Your task to perform on an android device: Clear the cart on ebay. Add "bose quietcomfort 35" to the cart on ebay Image 0: 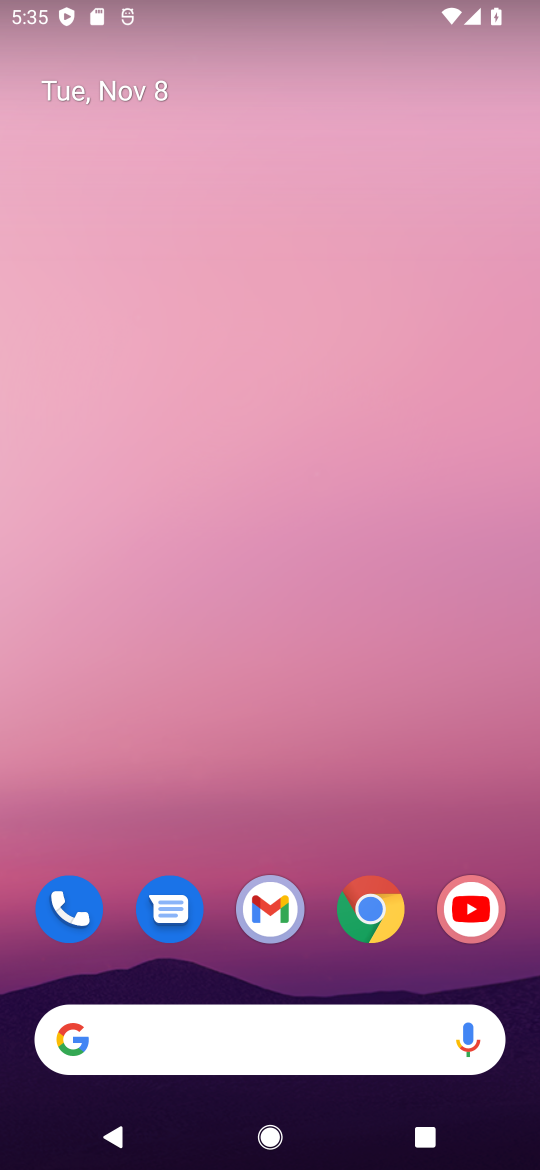
Step 0: click (363, 907)
Your task to perform on an android device: Clear the cart on ebay. Add "bose quietcomfort 35" to the cart on ebay Image 1: 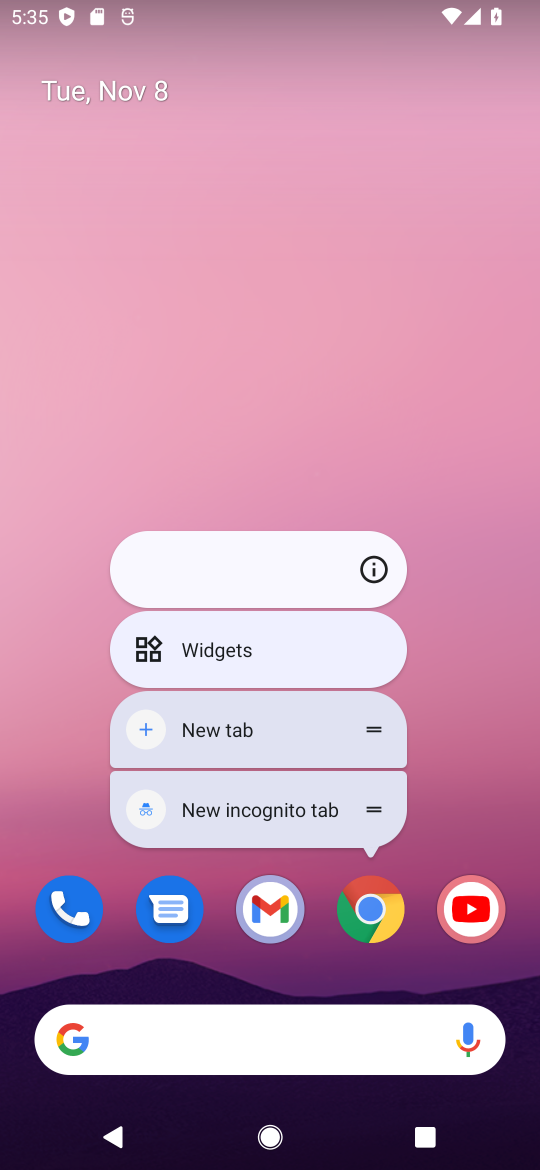
Step 1: click (383, 910)
Your task to perform on an android device: Clear the cart on ebay. Add "bose quietcomfort 35" to the cart on ebay Image 2: 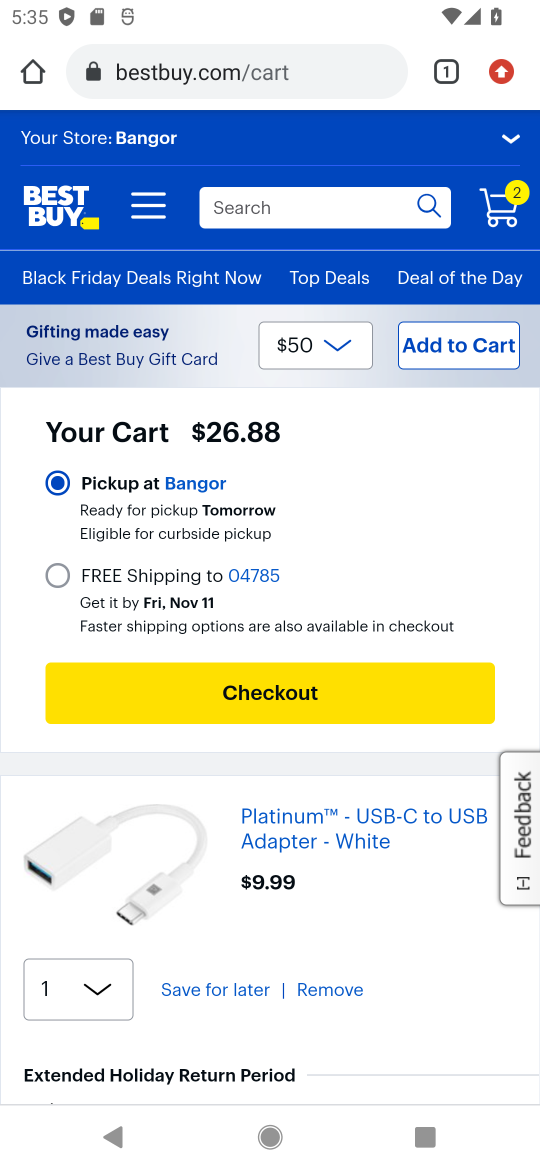
Step 2: click (305, 77)
Your task to perform on an android device: Clear the cart on ebay. Add "bose quietcomfort 35" to the cart on ebay Image 3: 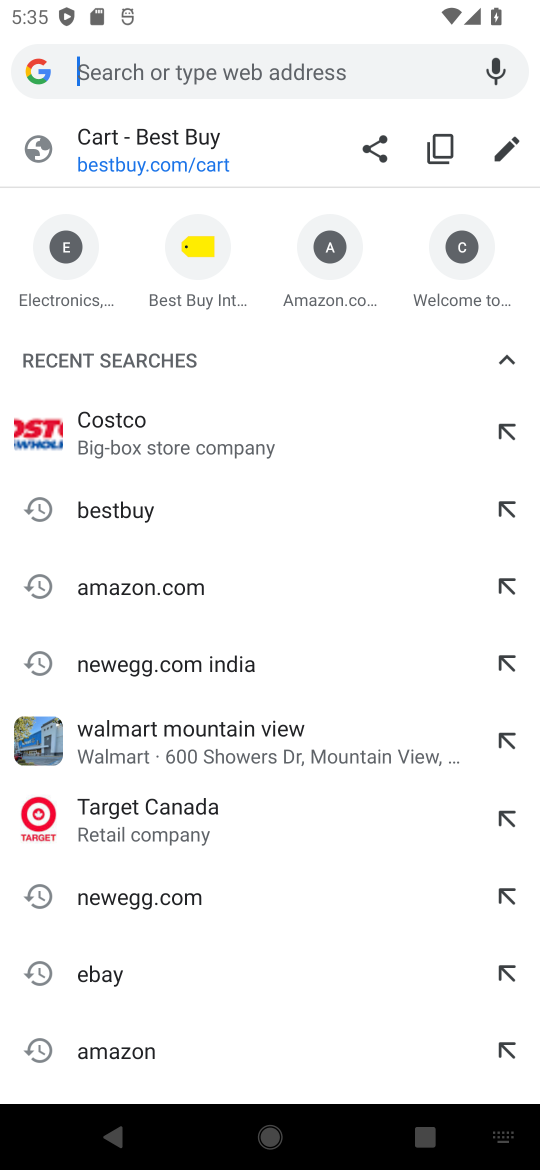
Step 3: click (84, 971)
Your task to perform on an android device: Clear the cart on ebay. Add "bose quietcomfort 35" to the cart on ebay Image 4: 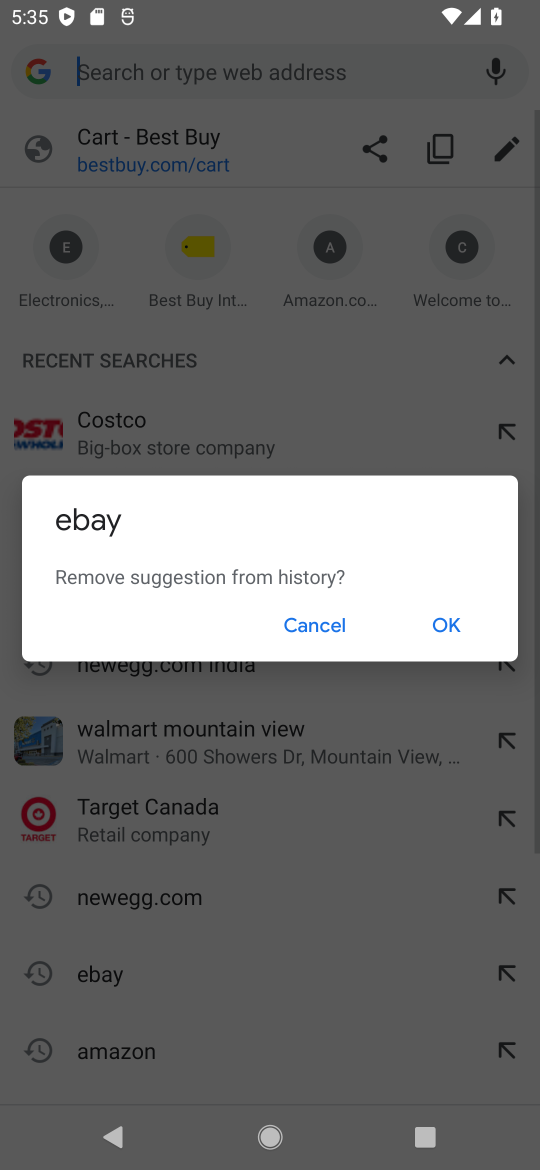
Step 4: click (110, 981)
Your task to perform on an android device: Clear the cart on ebay. Add "bose quietcomfort 35" to the cart on ebay Image 5: 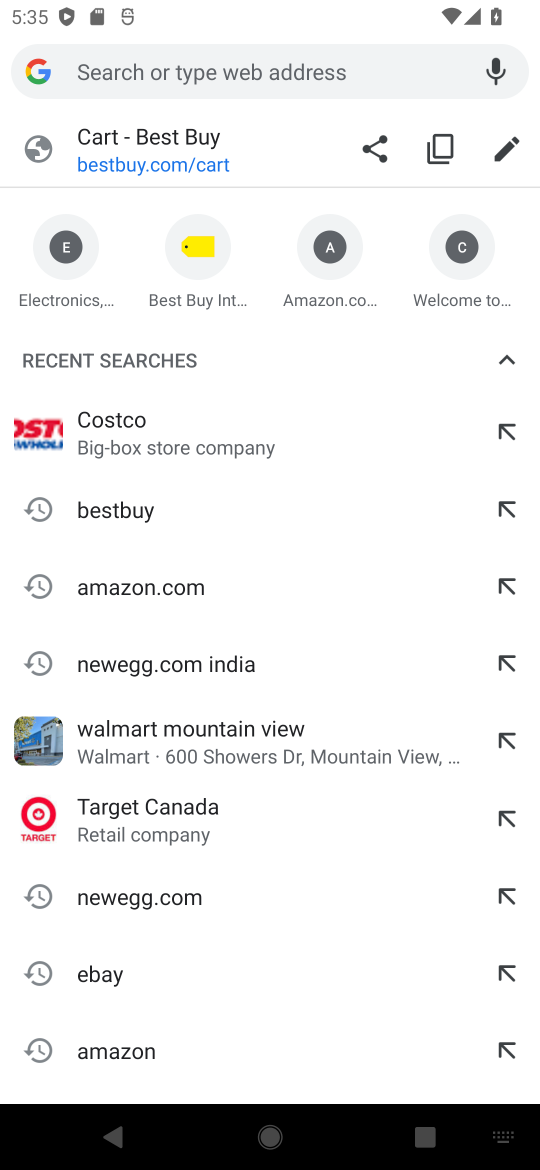
Step 5: click (102, 981)
Your task to perform on an android device: Clear the cart on ebay. Add "bose quietcomfort 35" to the cart on ebay Image 6: 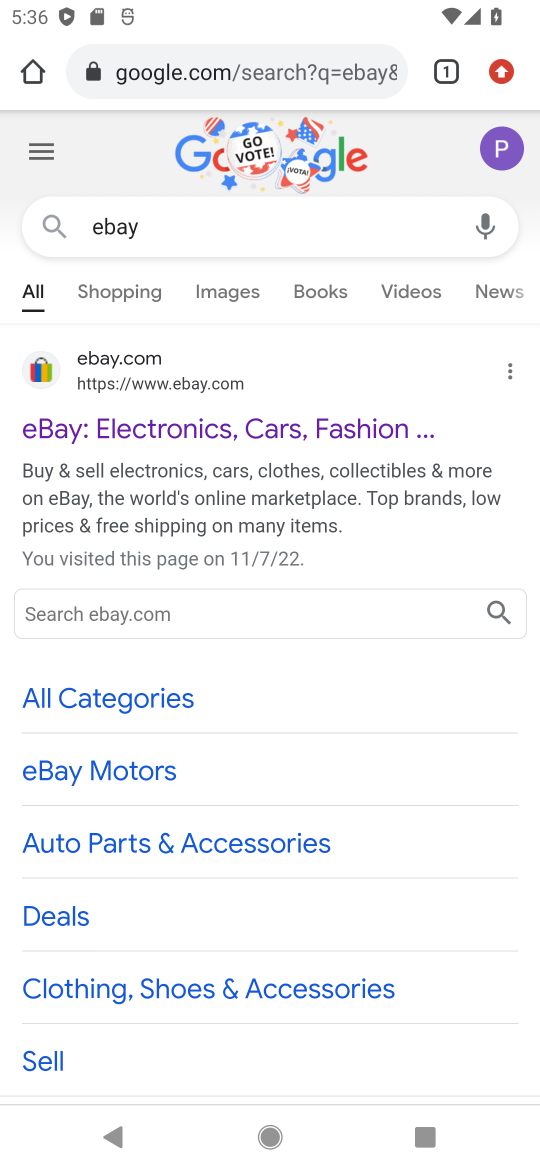
Step 6: click (290, 424)
Your task to perform on an android device: Clear the cart on ebay. Add "bose quietcomfort 35" to the cart on ebay Image 7: 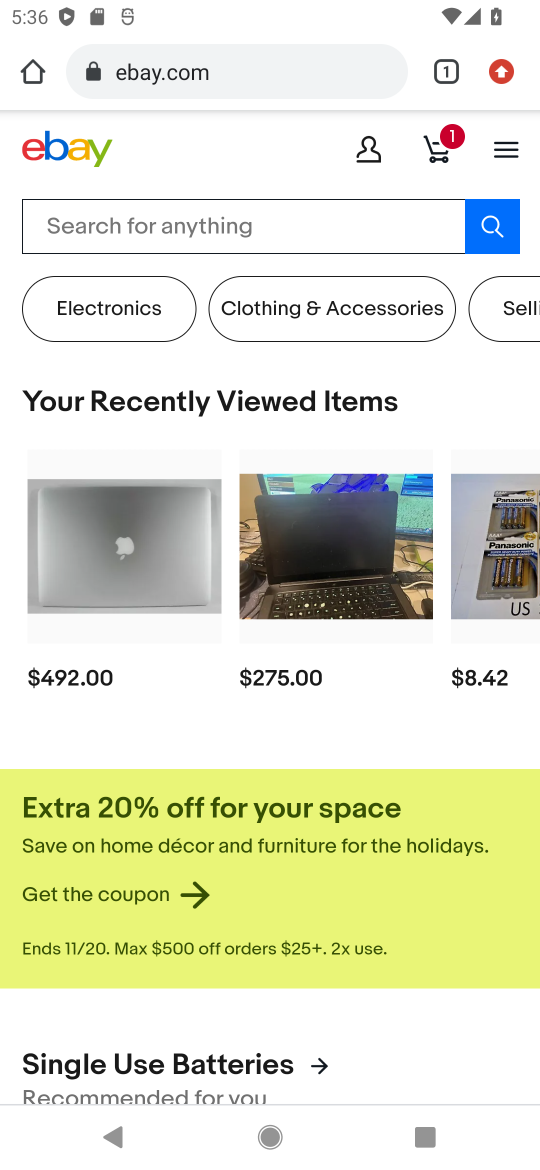
Step 7: click (274, 223)
Your task to perform on an android device: Clear the cart on ebay. Add "bose quietcomfort 35" to the cart on ebay Image 8: 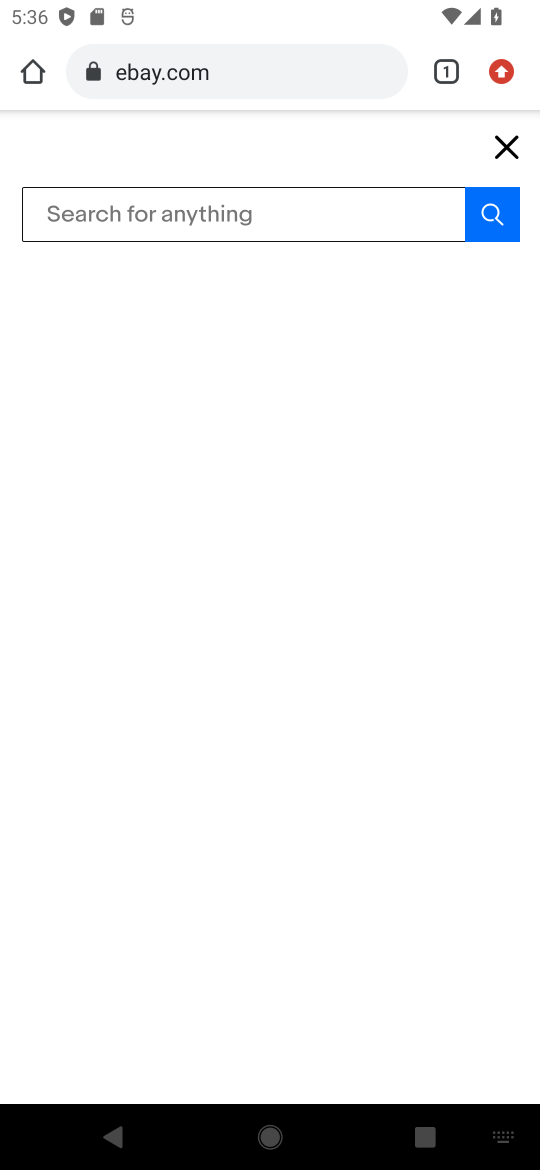
Step 8: type "bose quietcomfort 35"
Your task to perform on an android device: Clear the cart on ebay. Add "bose quietcomfort 35" to the cart on ebay Image 9: 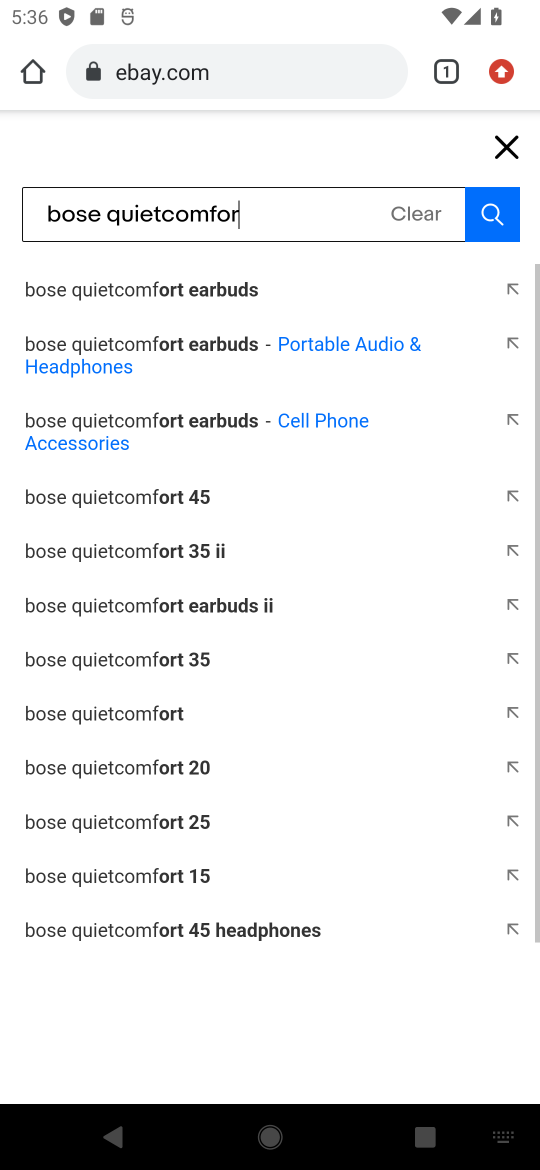
Step 9: press enter
Your task to perform on an android device: Clear the cart on ebay. Add "bose quietcomfort 35" to the cart on ebay Image 10: 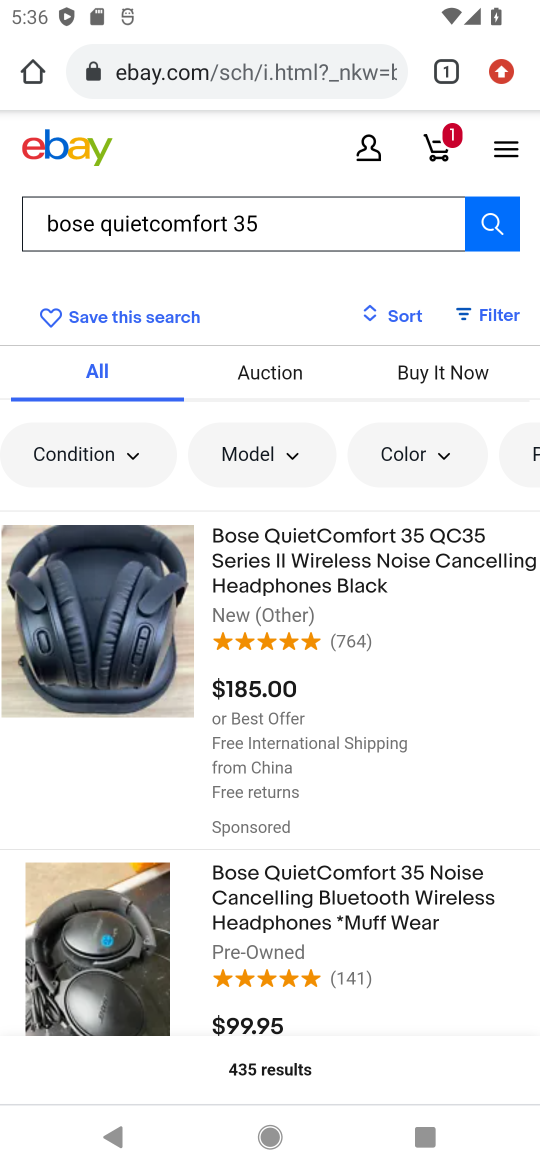
Step 10: click (302, 582)
Your task to perform on an android device: Clear the cart on ebay. Add "bose quietcomfort 35" to the cart on ebay Image 11: 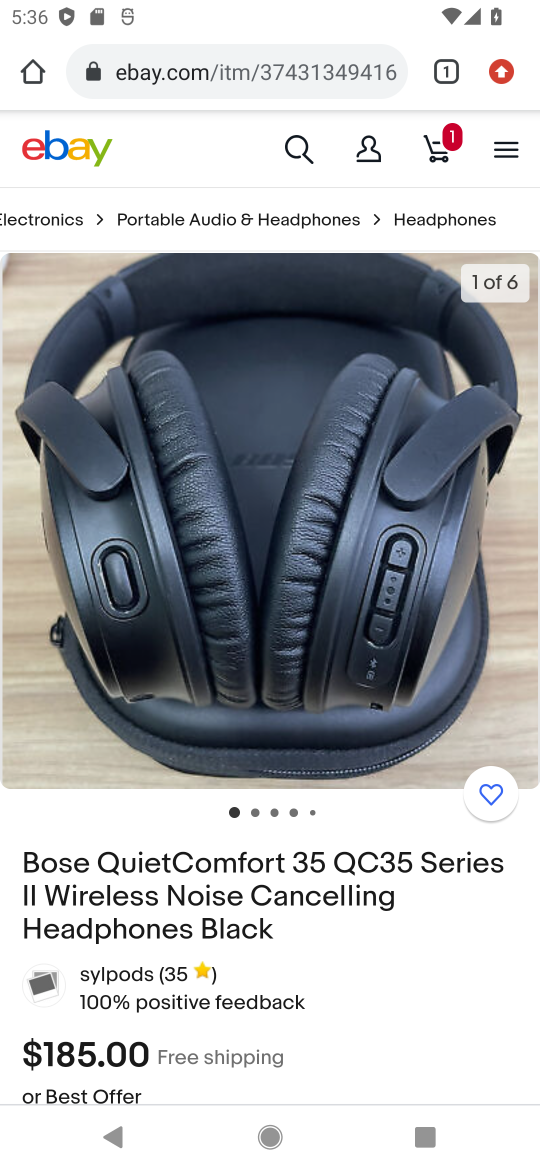
Step 11: click (225, 723)
Your task to perform on an android device: Clear the cart on ebay. Add "bose quietcomfort 35" to the cart on ebay Image 12: 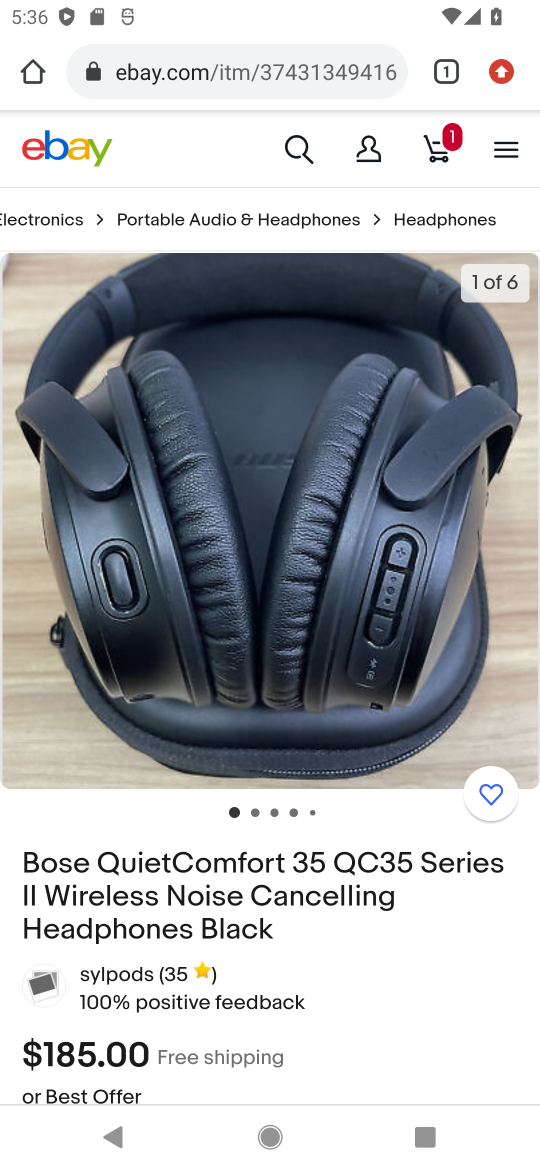
Step 12: drag from (327, 982) to (536, 281)
Your task to perform on an android device: Clear the cart on ebay. Add "bose quietcomfort 35" to the cart on ebay Image 13: 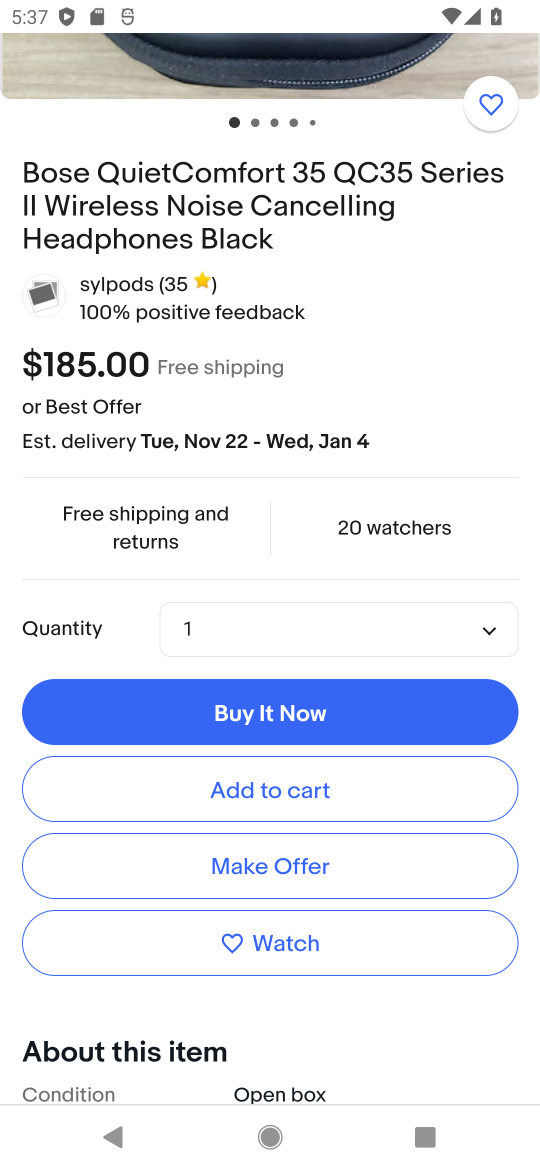
Step 13: click (237, 794)
Your task to perform on an android device: Clear the cart on ebay. Add "bose quietcomfort 35" to the cart on ebay Image 14: 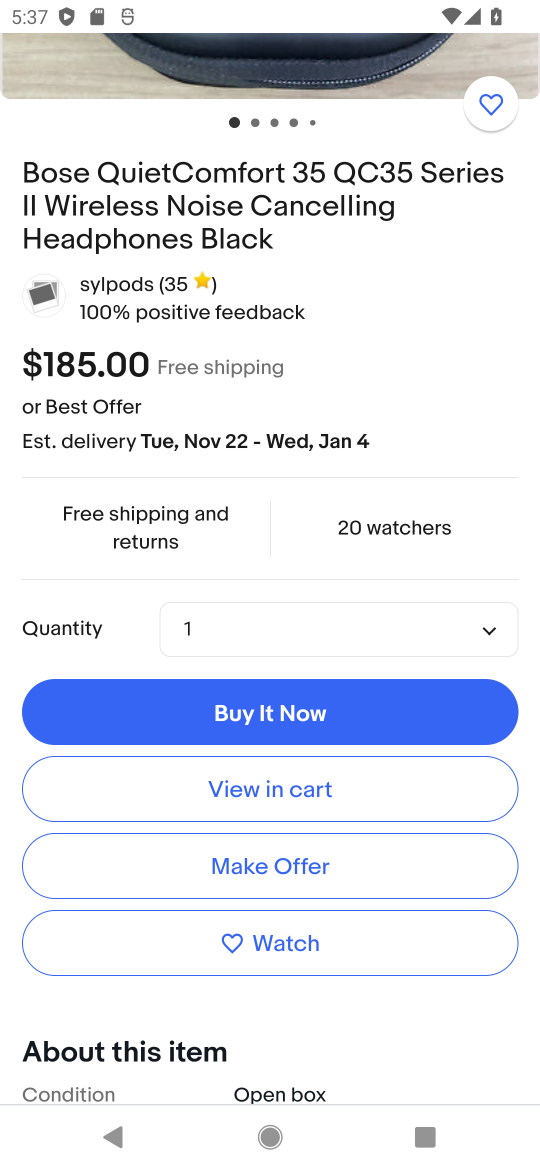
Step 14: click (242, 788)
Your task to perform on an android device: Clear the cart on ebay. Add "bose quietcomfort 35" to the cart on ebay Image 15: 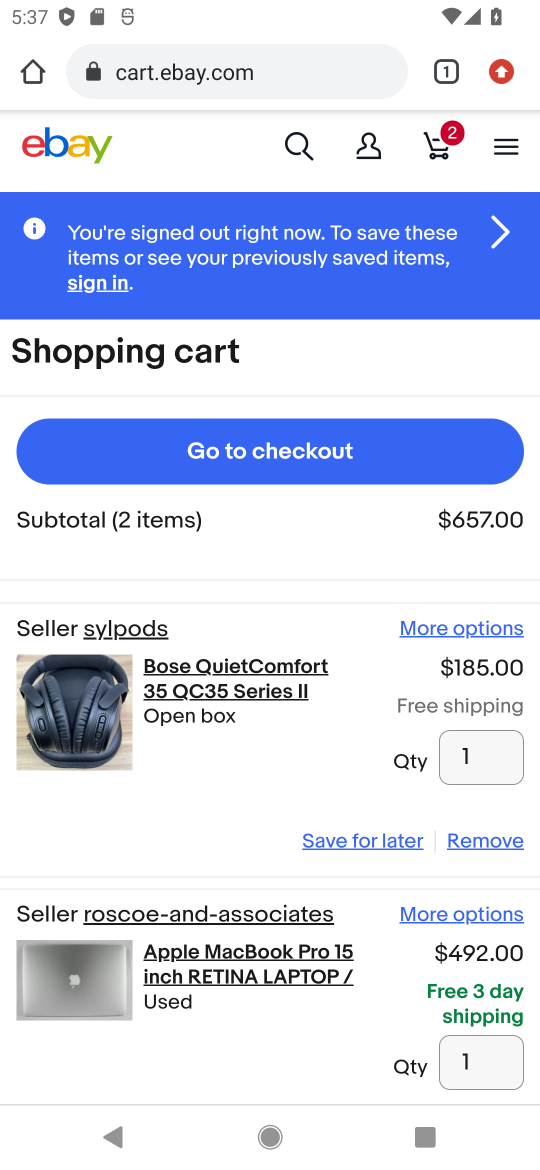
Step 15: drag from (235, 832) to (378, 450)
Your task to perform on an android device: Clear the cart on ebay. Add "bose quietcomfort 35" to the cart on ebay Image 16: 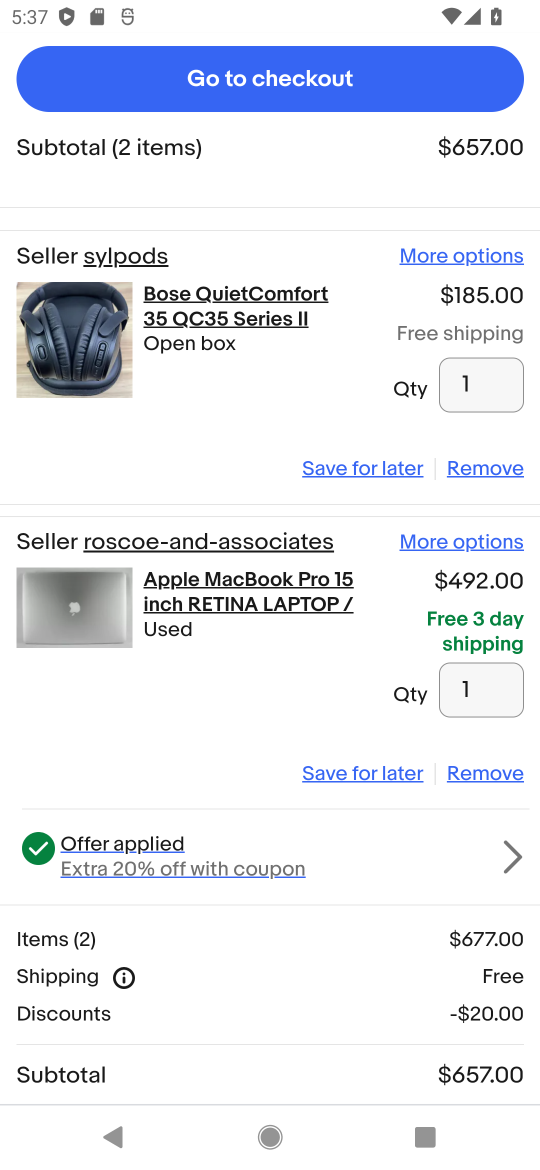
Step 16: click (476, 771)
Your task to perform on an android device: Clear the cart on ebay. Add "bose quietcomfort 35" to the cart on ebay Image 17: 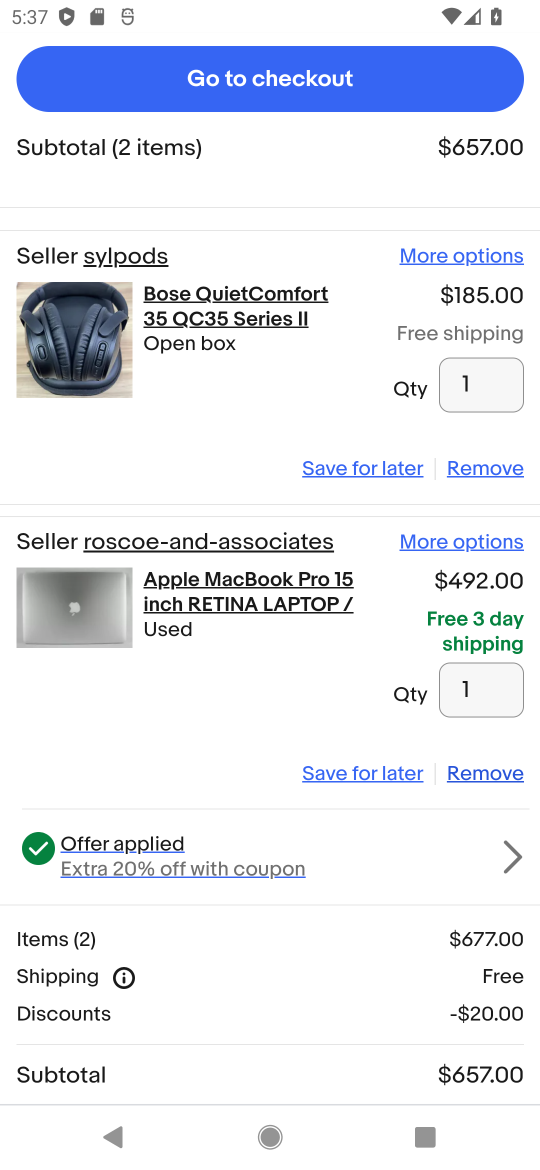
Step 17: click (484, 771)
Your task to perform on an android device: Clear the cart on ebay. Add "bose quietcomfort 35" to the cart on ebay Image 18: 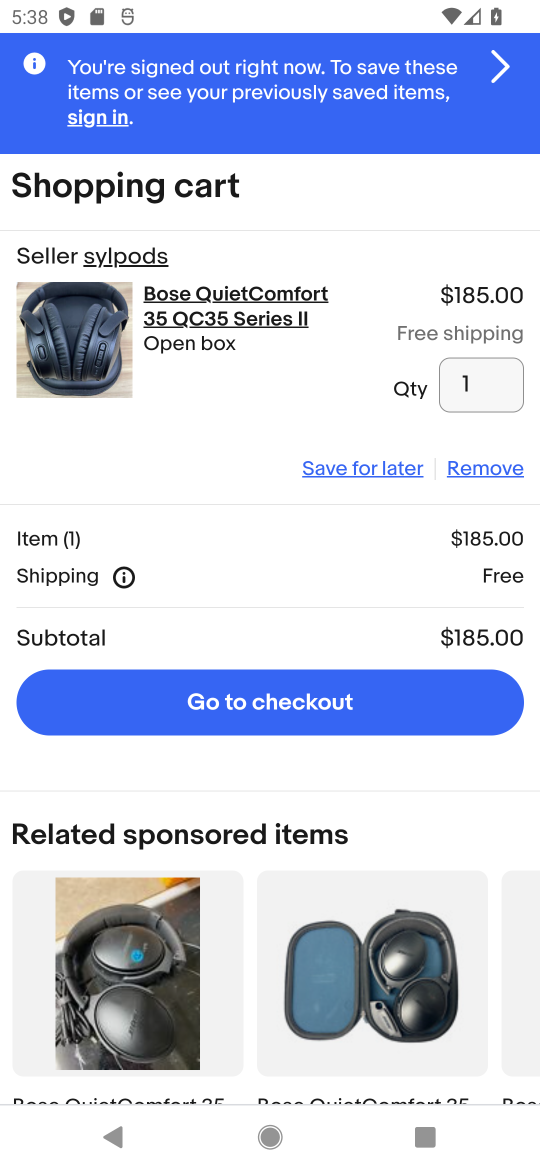
Step 18: task complete